Your task to perform on an android device: toggle javascript in the chrome app Image 0: 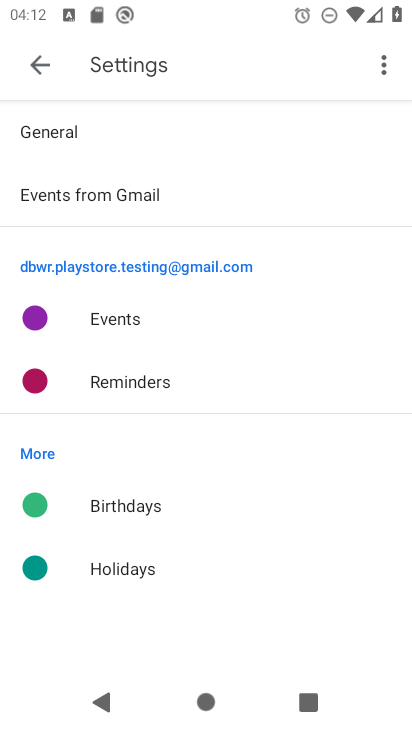
Step 0: press home button
Your task to perform on an android device: toggle javascript in the chrome app Image 1: 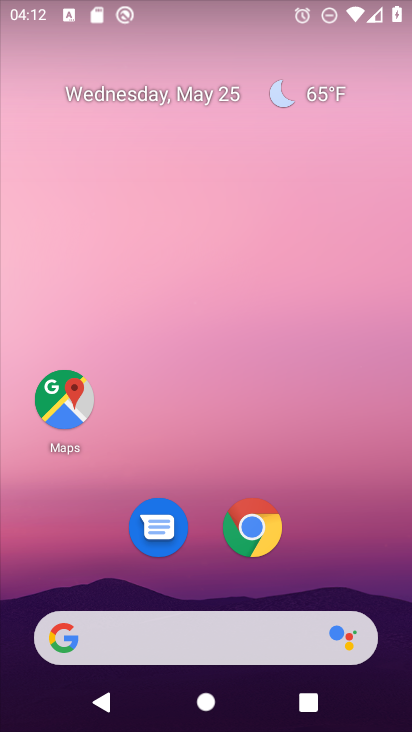
Step 1: drag from (164, 598) to (325, 45)
Your task to perform on an android device: toggle javascript in the chrome app Image 2: 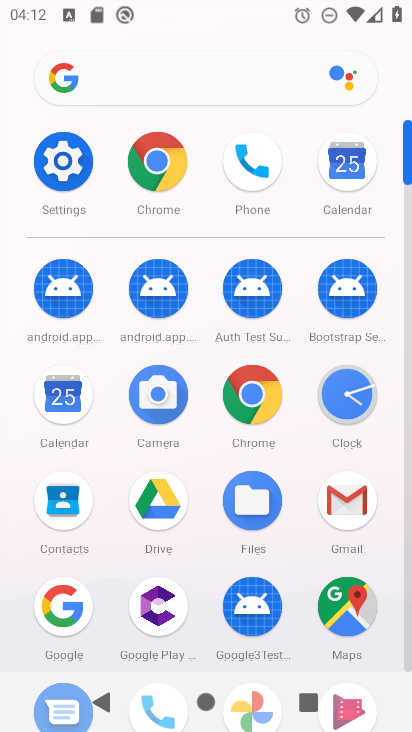
Step 2: click (258, 386)
Your task to perform on an android device: toggle javascript in the chrome app Image 3: 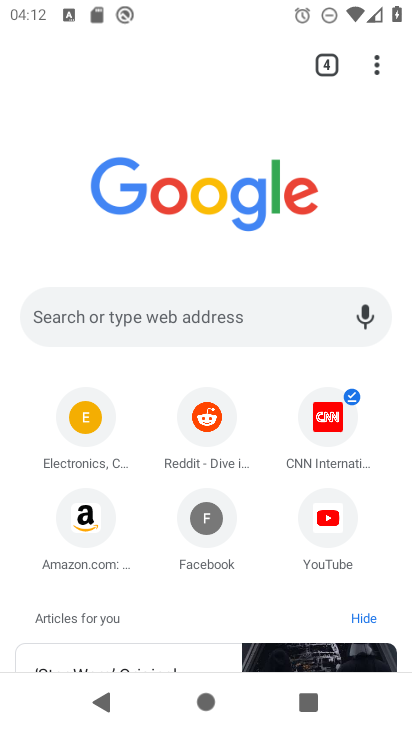
Step 3: click (376, 70)
Your task to perform on an android device: toggle javascript in the chrome app Image 4: 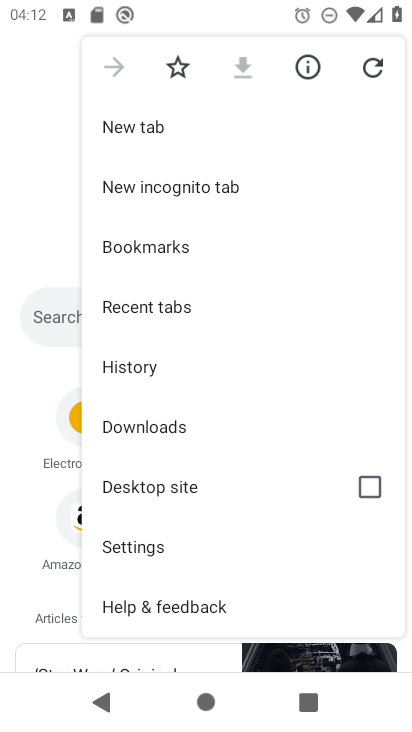
Step 4: click (145, 541)
Your task to perform on an android device: toggle javascript in the chrome app Image 5: 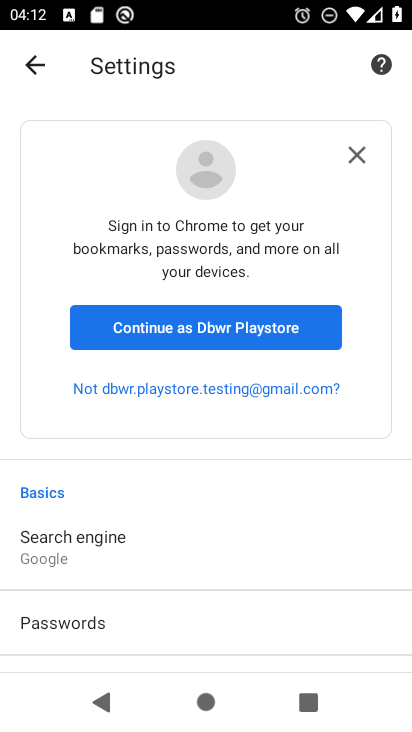
Step 5: drag from (232, 647) to (266, 243)
Your task to perform on an android device: toggle javascript in the chrome app Image 6: 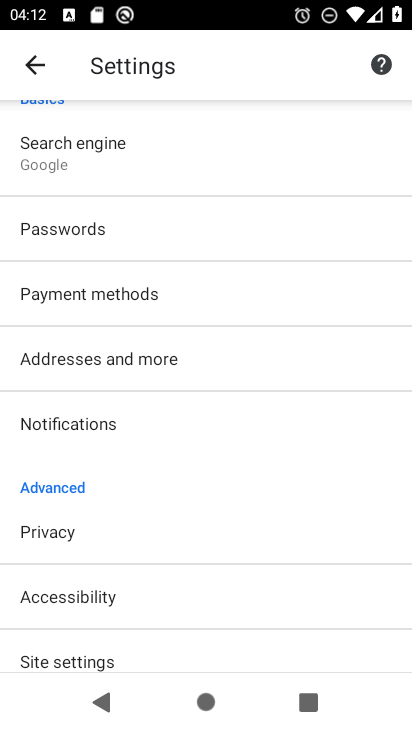
Step 6: drag from (166, 612) to (187, 272)
Your task to perform on an android device: toggle javascript in the chrome app Image 7: 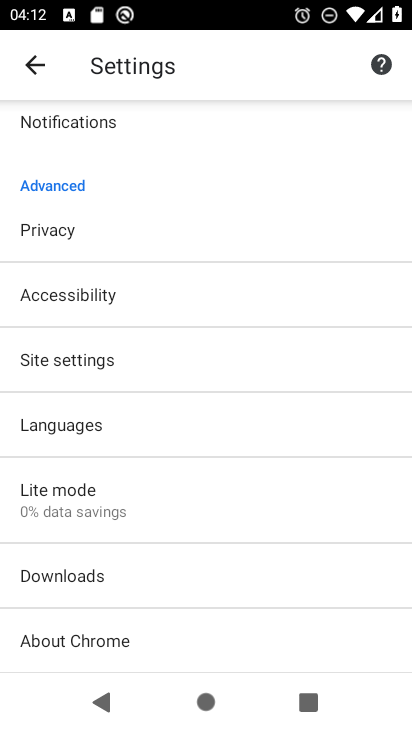
Step 7: click (87, 352)
Your task to perform on an android device: toggle javascript in the chrome app Image 8: 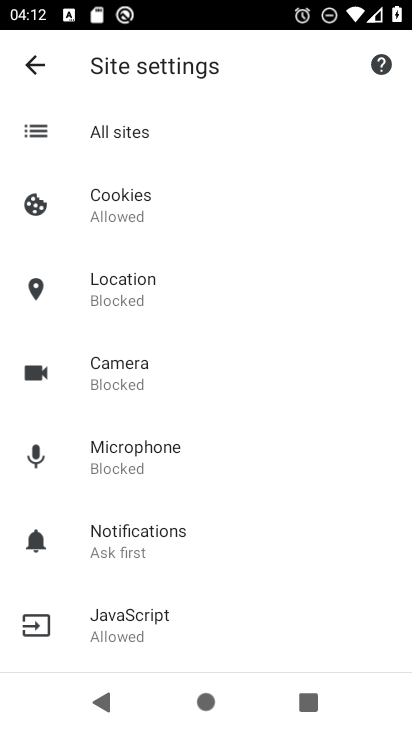
Step 8: click (136, 609)
Your task to perform on an android device: toggle javascript in the chrome app Image 9: 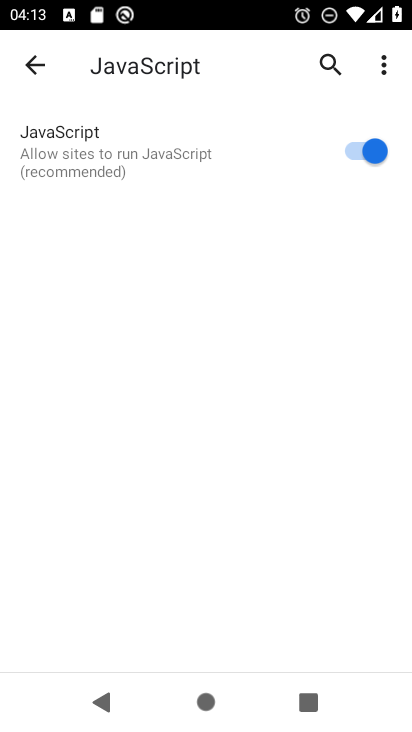
Step 9: click (366, 146)
Your task to perform on an android device: toggle javascript in the chrome app Image 10: 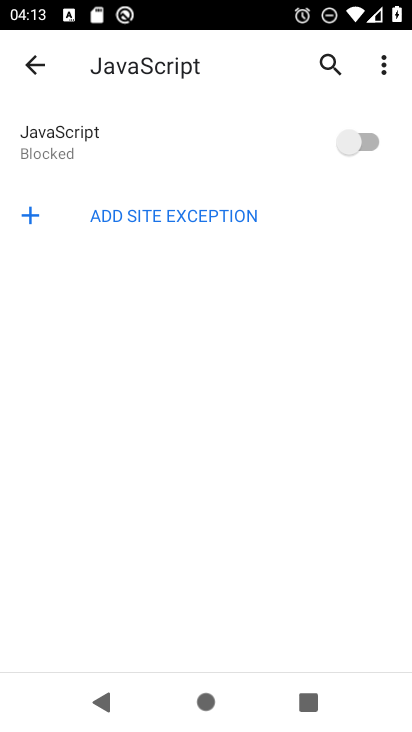
Step 10: task complete